Your task to perform on an android device: check out phone information Image 0: 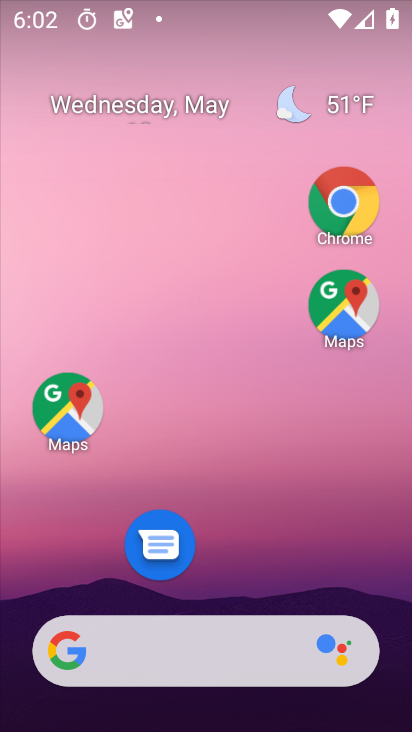
Step 0: click (344, 228)
Your task to perform on an android device: check out phone information Image 1: 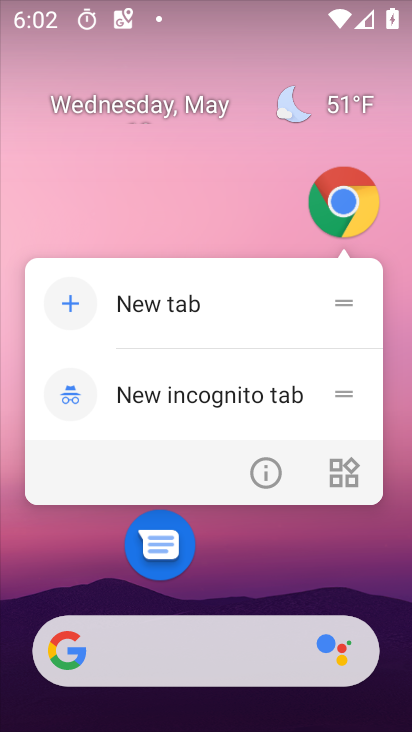
Step 1: press home button
Your task to perform on an android device: check out phone information Image 2: 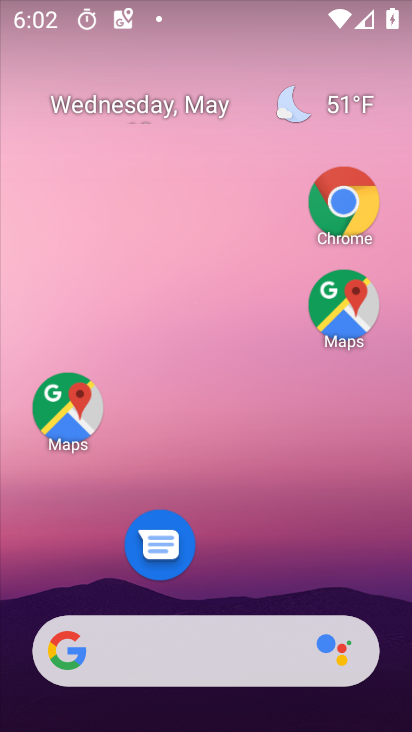
Step 2: drag from (252, 556) to (211, 113)
Your task to perform on an android device: check out phone information Image 3: 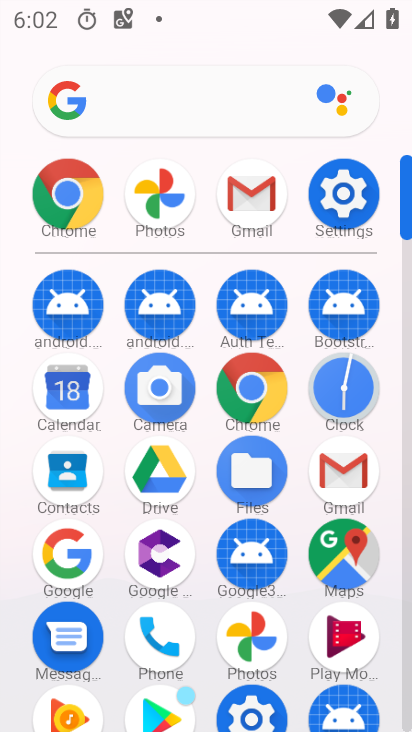
Step 3: click (344, 189)
Your task to perform on an android device: check out phone information Image 4: 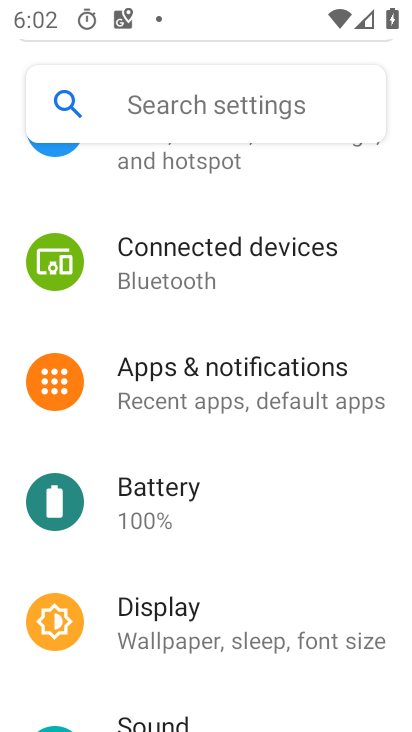
Step 4: drag from (237, 554) to (216, 116)
Your task to perform on an android device: check out phone information Image 5: 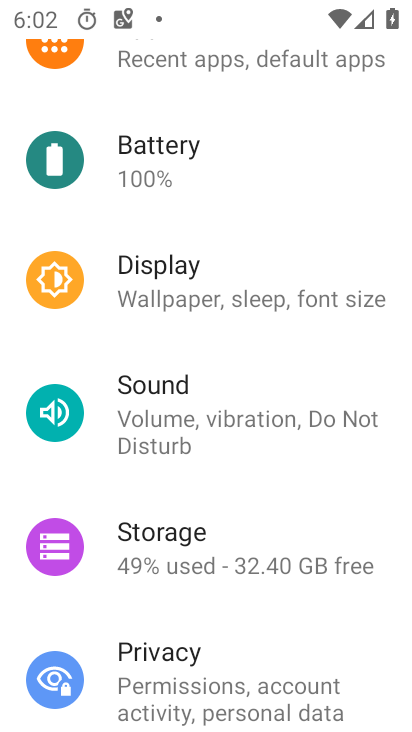
Step 5: drag from (193, 539) to (193, 124)
Your task to perform on an android device: check out phone information Image 6: 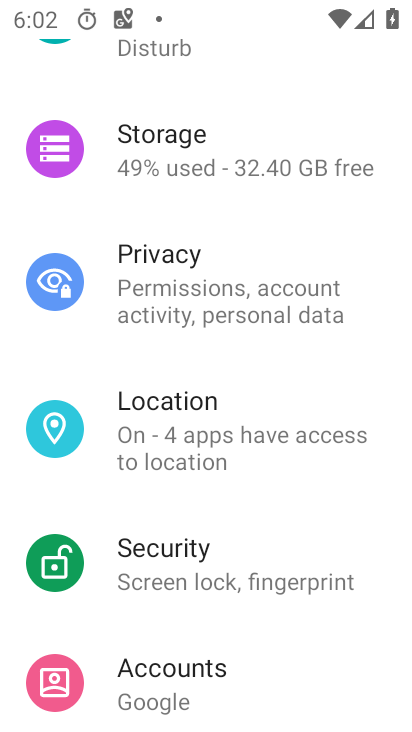
Step 6: drag from (195, 358) to (180, 186)
Your task to perform on an android device: check out phone information Image 7: 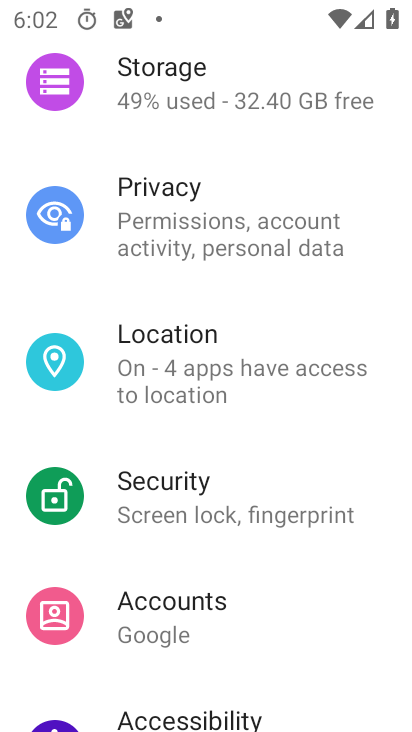
Step 7: drag from (244, 619) to (274, 183)
Your task to perform on an android device: check out phone information Image 8: 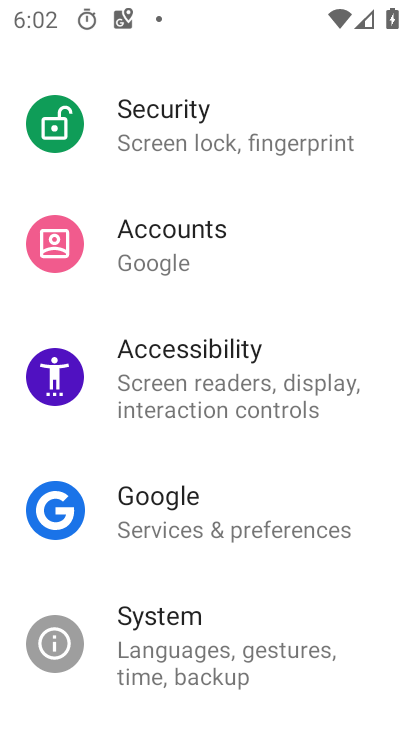
Step 8: drag from (193, 650) to (191, 231)
Your task to perform on an android device: check out phone information Image 9: 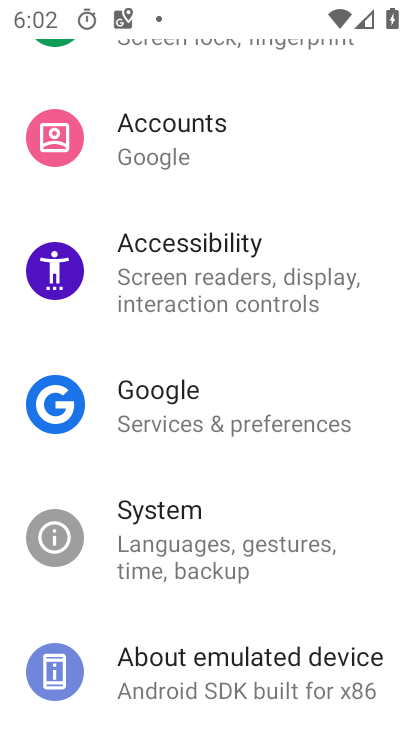
Step 9: click (155, 698)
Your task to perform on an android device: check out phone information Image 10: 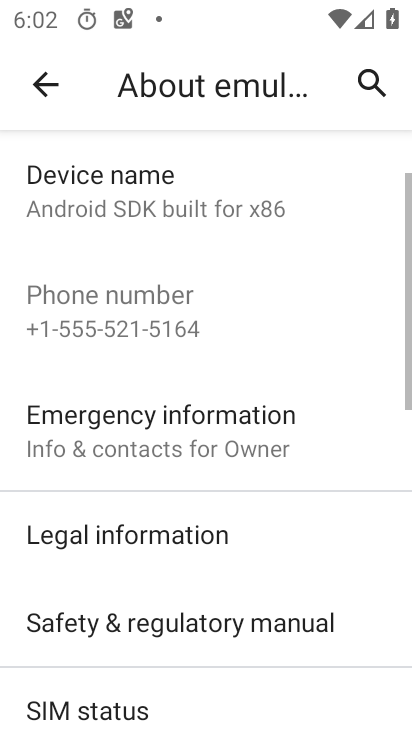
Step 10: task complete